Your task to perform on an android device: Open network settings Image 0: 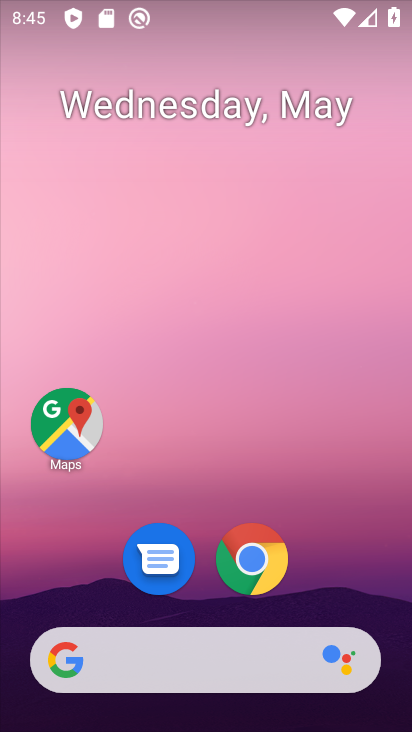
Step 0: drag from (73, 620) to (234, 54)
Your task to perform on an android device: Open network settings Image 1: 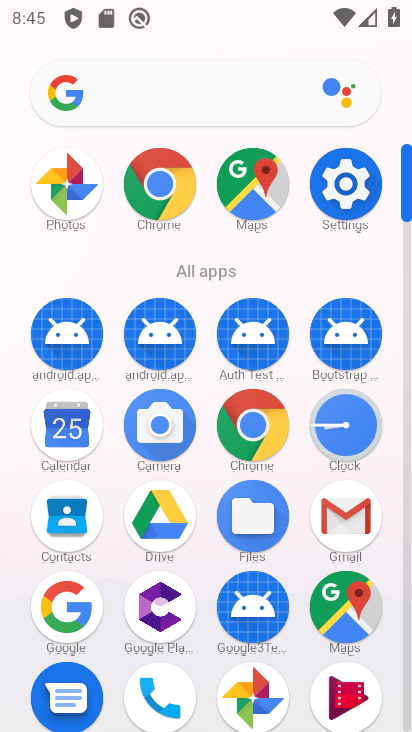
Step 1: drag from (194, 636) to (263, 317)
Your task to perform on an android device: Open network settings Image 2: 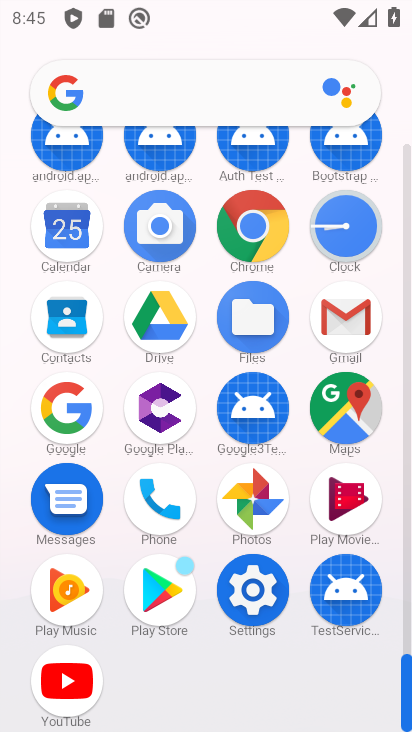
Step 2: click (248, 593)
Your task to perform on an android device: Open network settings Image 3: 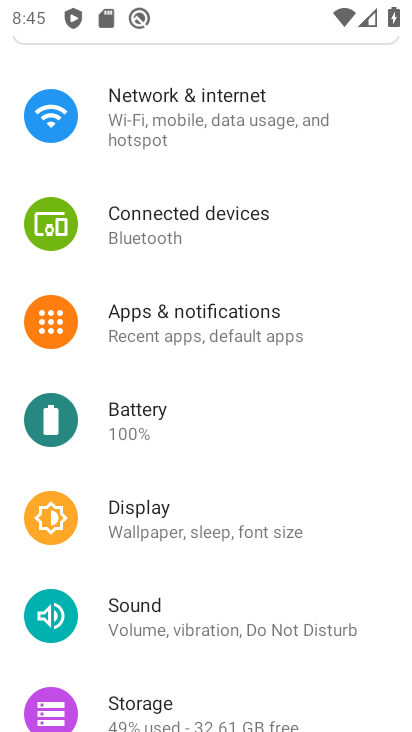
Step 3: click (229, 138)
Your task to perform on an android device: Open network settings Image 4: 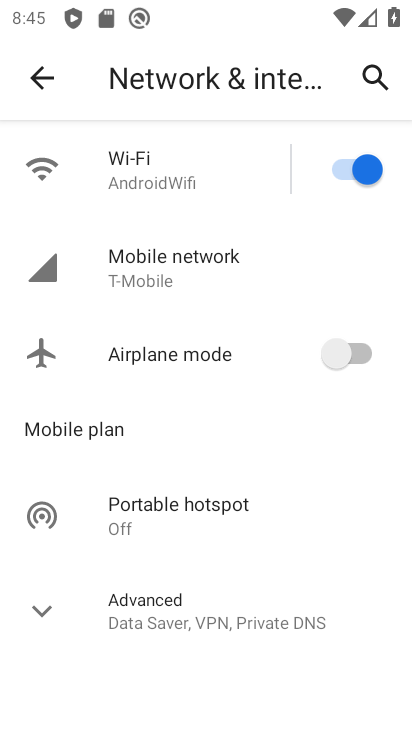
Step 4: click (196, 293)
Your task to perform on an android device: Open network settings Image 5: 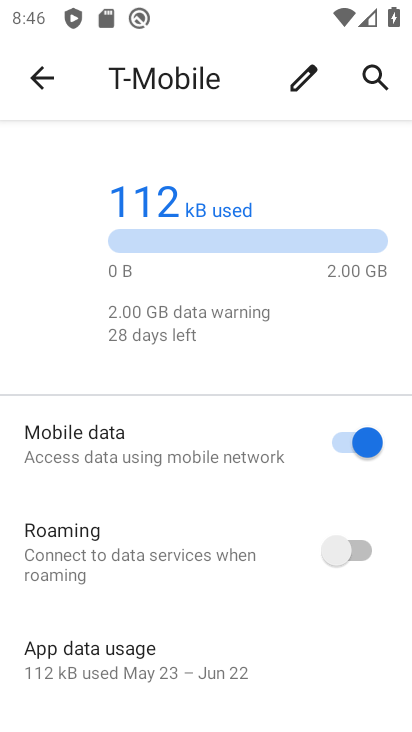
Step 5: task complete